Your task to perform on an android device: Open Yahoo.com Image 0: 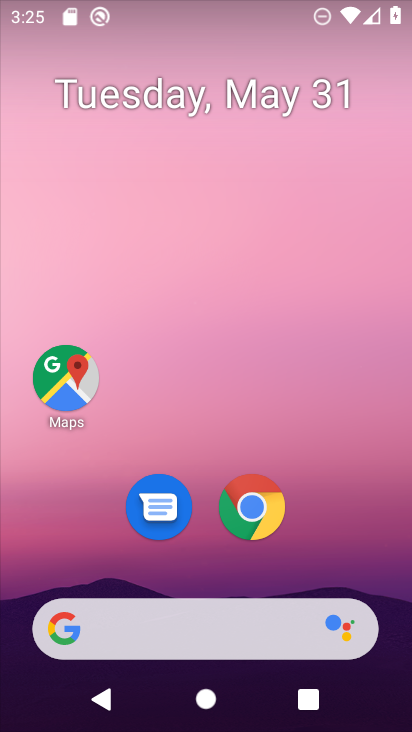
Step 0: click (234, 513)
Your task to perform on an android device: Open Yahoo.com Image 1: 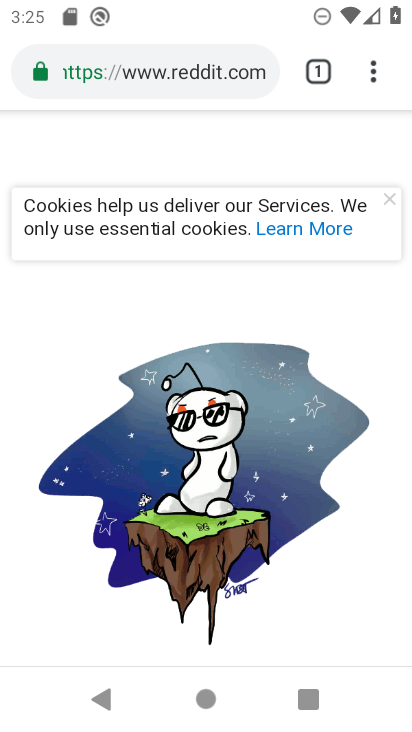
Step 1: click (323, 80)
Your task to perform on an android device: Open Yahoo.com Image 2: 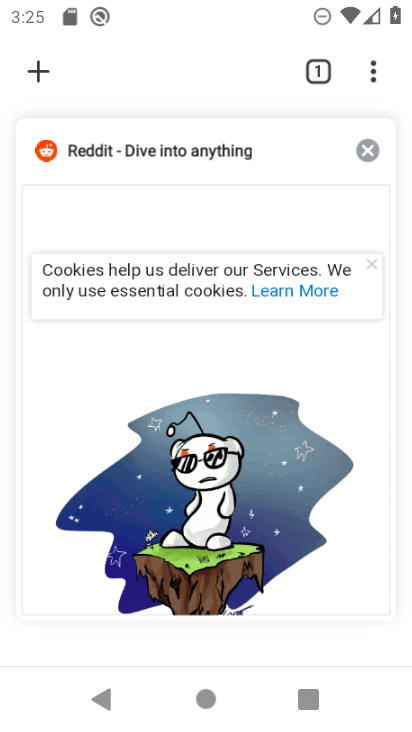
Step 2: click (370, 160)
Your task to perform on an android device: Open Yahoo.com Image 3: 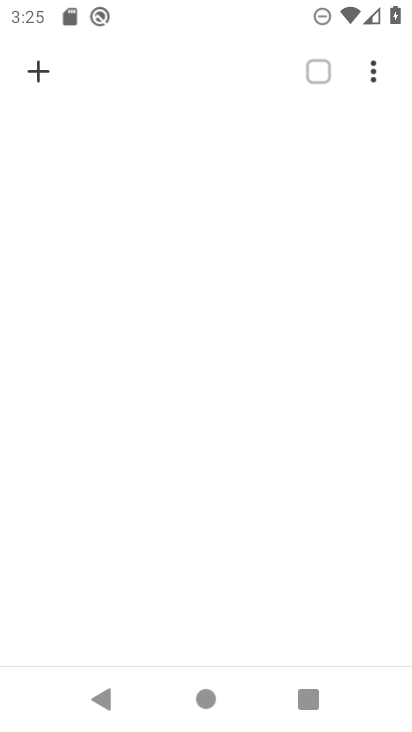
Step 3: click (31, 74)
Your task to perform on an android device: Open Yahoo.com Image 4: 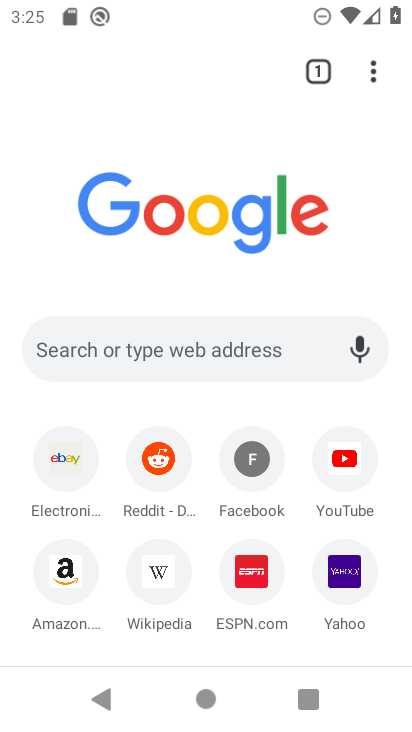
Step 4: click (333, 578)
Your task to perform on an android device: Open Yahoo.com Image 5: 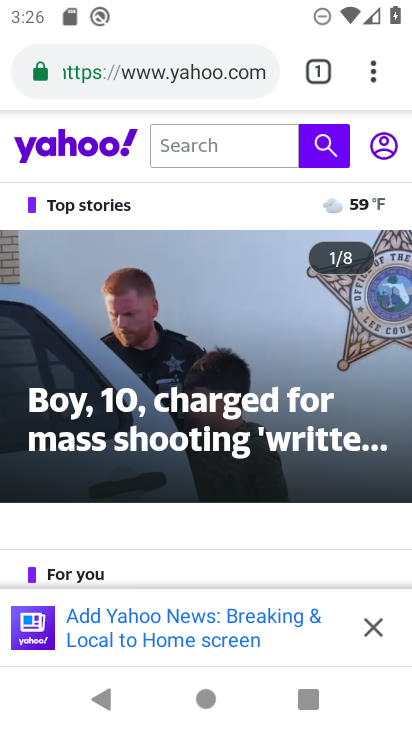
Step 5: task complete